Your task to perform on an android device: Open Google Maps Image 0: 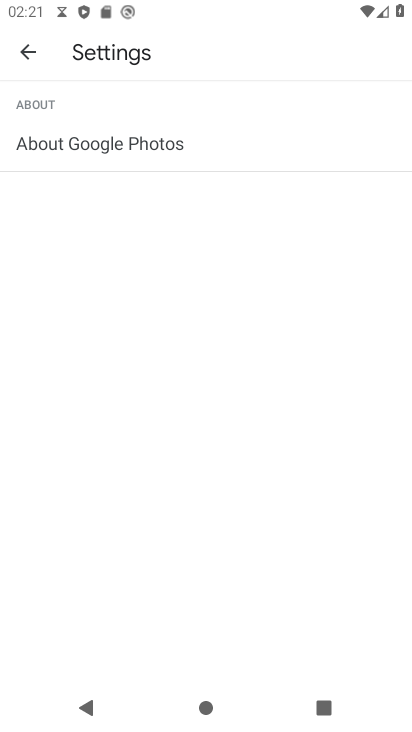
Step 0: press home button
Your task to perform on an android device: Open Google Maps Image 1: 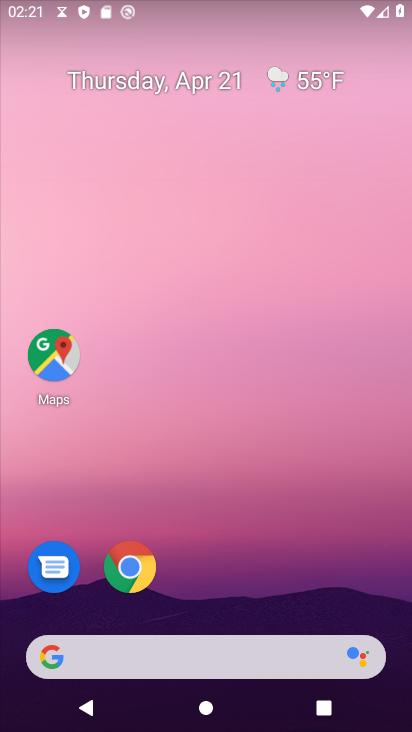
Step 1: drag from (160, 654) to (315, 141)
Your task to perform on an android device: Open Google Maps Image 2: 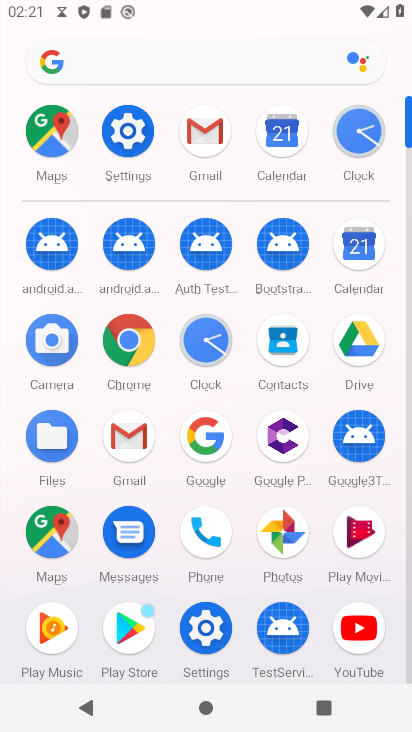
Step 2: click (52, 537)
Your task to perform on an android device: Open Google Maps Image 3: 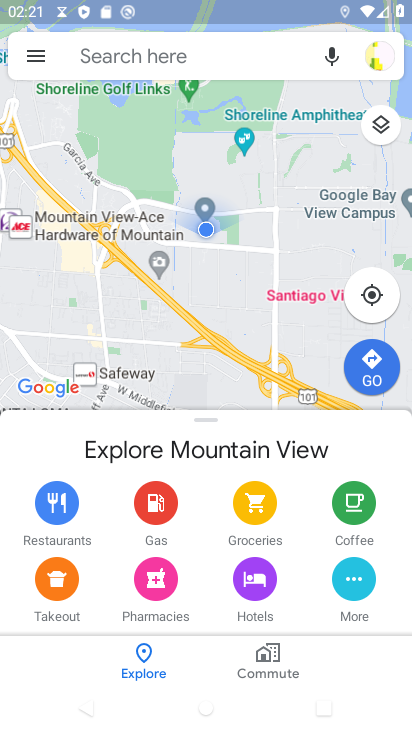
Step 3: task complete